Your task to perform on an android device: change the clock display to show seconds Image 0: 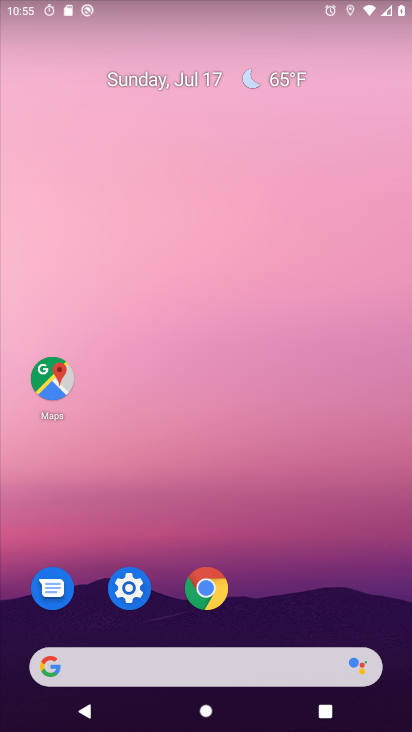
Step 0: drag from (241, 381) to (194, 127)
Your task to perform on an android device: change the clock display to show seconds Image 1: 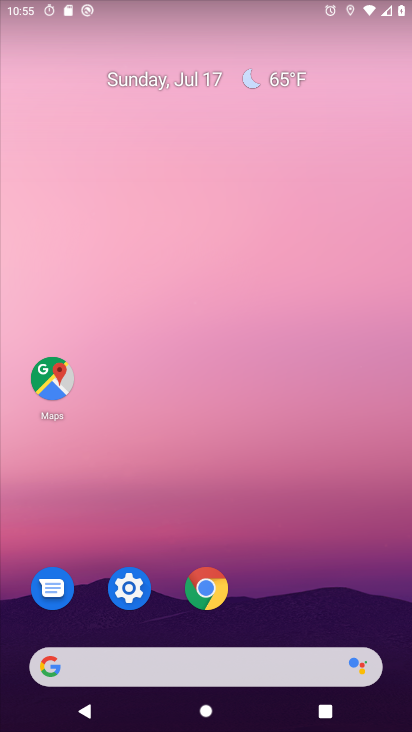
Step 1: drag from (271, 656) to (218, 277)
Your task to perform on an android device: change the clock display to show seconds Image 2: 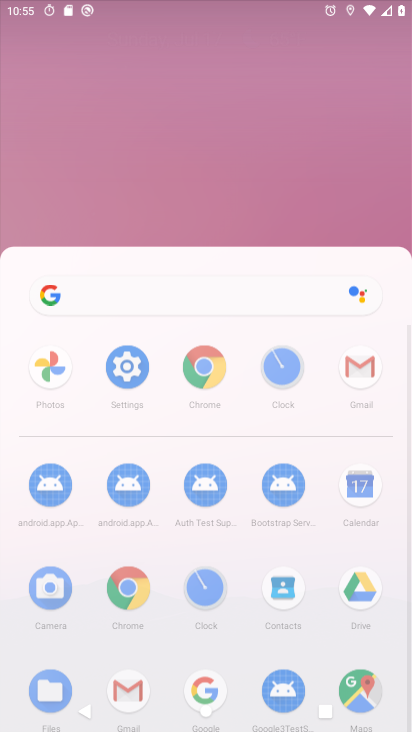
Step 2: drag from (294, 608) to (222, 124)
Your task to perform on an android device: change the clock display to show seconds Image 3: 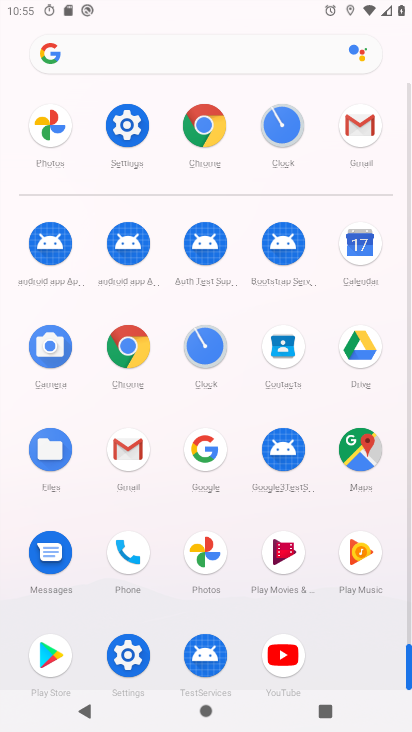
Step 3: click (270, 124)
Your task to perform on an android device: change the clock display to show seconds Image 4: 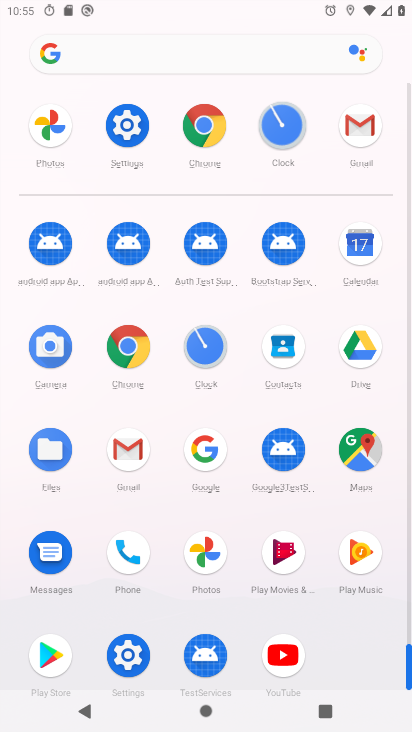
Step 4: click (272, 119)
Your task to perform on an android device: change the clock display to show seconds Image 5: 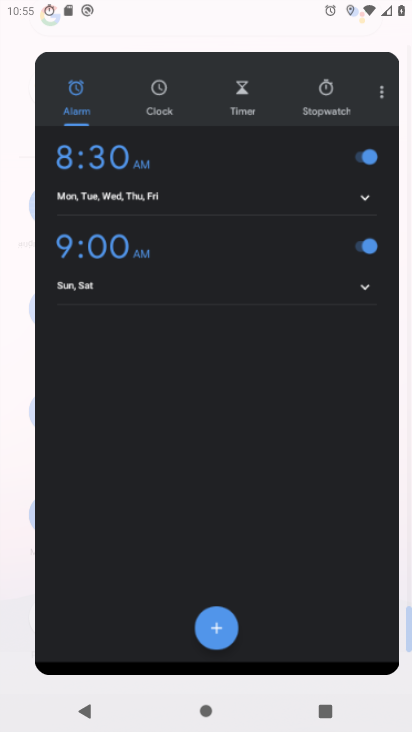
Step 5: click (274, 120)
Your task to perform on an android device: change the clock display to show seconds Image 6: 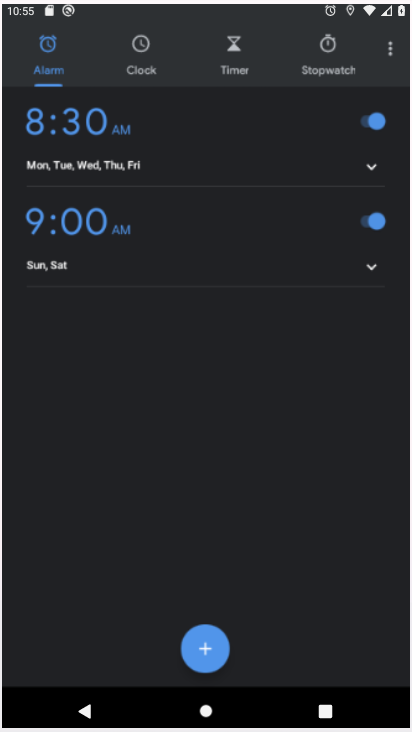
Step 6: click (275, 121)
Your task to perform on an android device: change the clock display to show seconds Image 7: 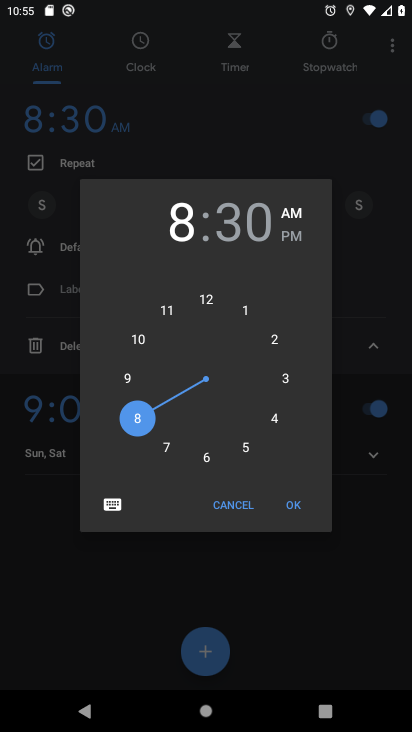
Step 7: click (388, 42)
Your task to perform on an android device: change the clock display to show seconds Image 8: 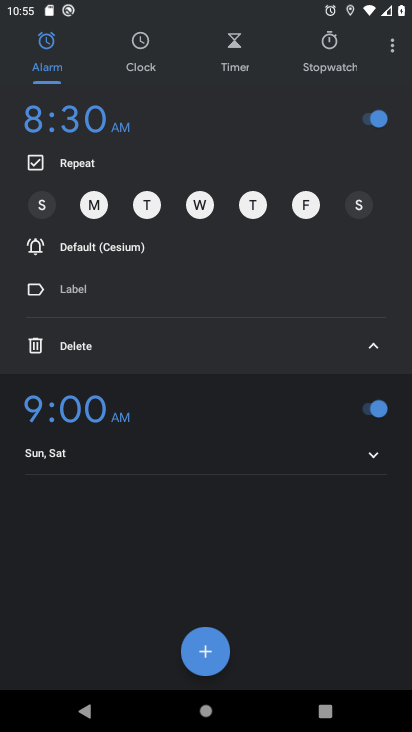
Step 8: click (388, 42)
Your task to perform on an android device: change the clock display to show seconds Image 9: 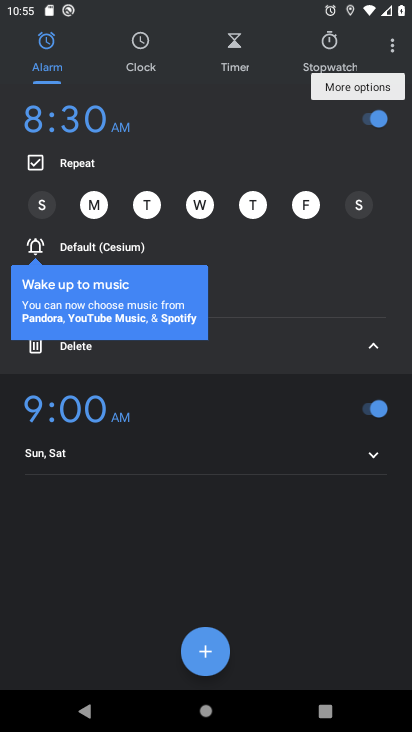
Step 9: click (388, 42)
Your task to perform on an android device: change the clock display to show seconds Image 10: 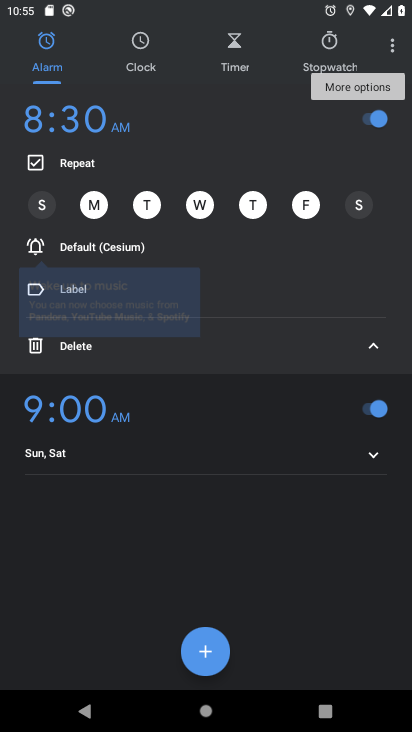
Step 10: click (388, 42)
Your task to perform on an android device: change the clock display to show seconds Image 11: 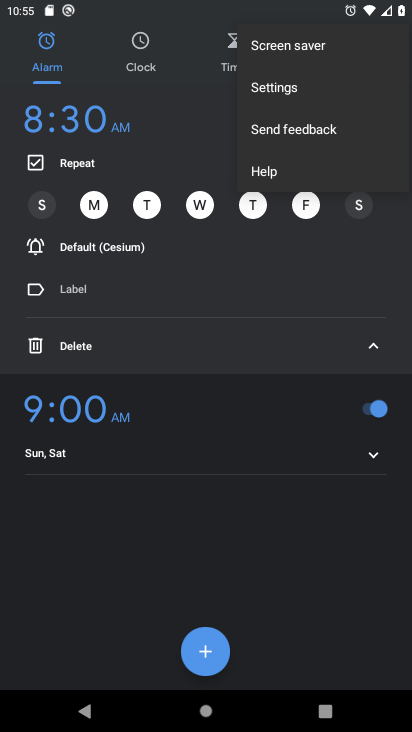
Step 11: click (294, 85)
Your task to perform on an android device: change the clock display to show seconds Image 12: 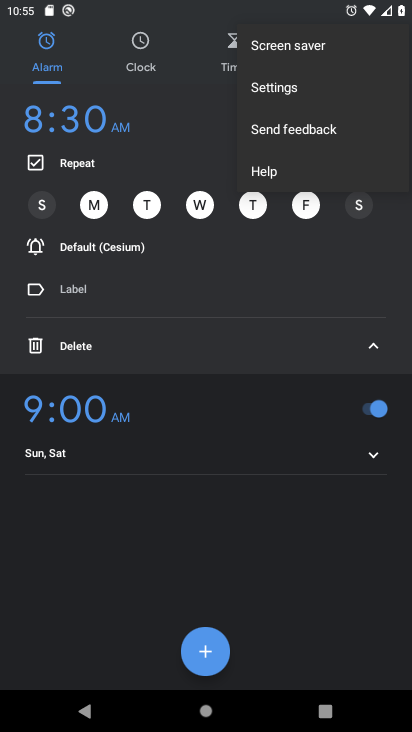
Step 12: click (294, 84)
Your task to perform on an android device: change the clock display to show seconds Image 13: 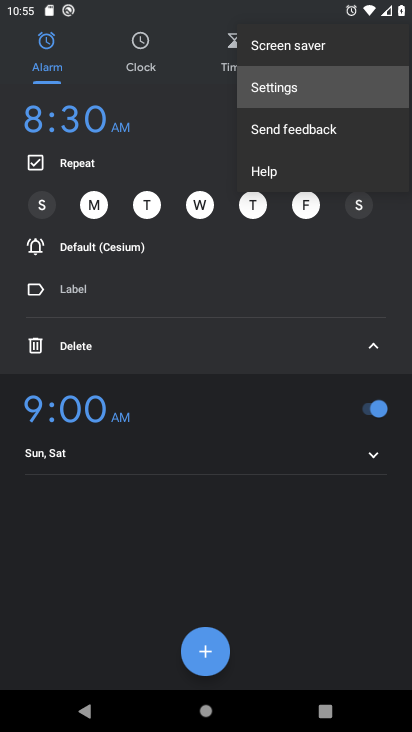
Step 13: click (294, 84)
Your task to perform on an android device: change the clock display to show seconds Image 14: 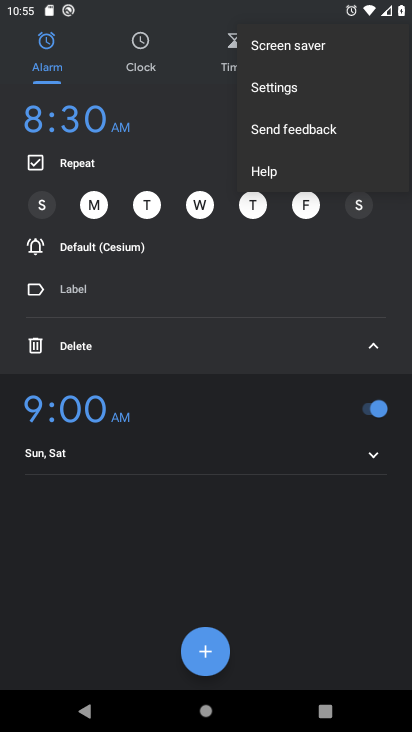
Step 14: click (295, 85)
Your task to perform on an android device: change the clock display to show seconds Image 15: 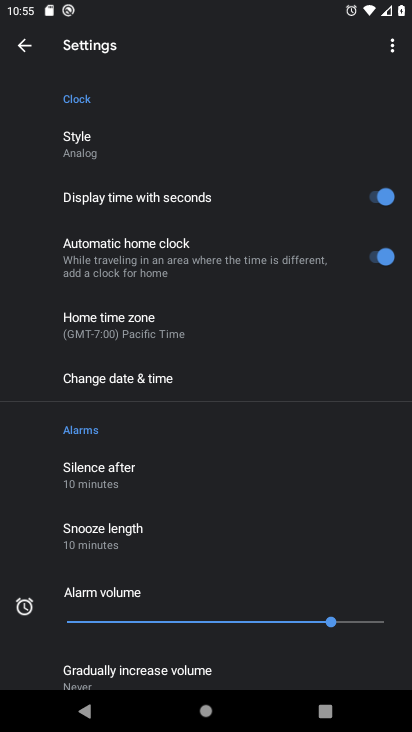
Step 15: task complete